Your task to perform on an android device: Open calendar and show me the fourth week of next month Image 0: 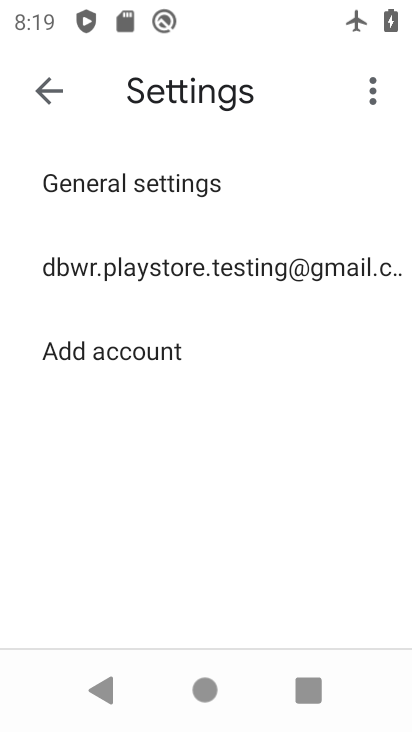
Step 0: press home button
Your task to perform on an android device: Open calendar and show me the fourth week of next month Image 1: 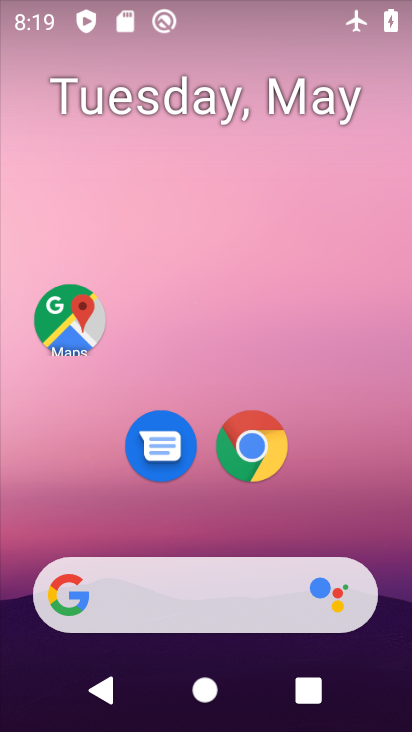
Step 1: drag from (369, 535) to (372, 210)
Your task to perform on an android device: Open calendar and show me the fourth week of next month Image 2: 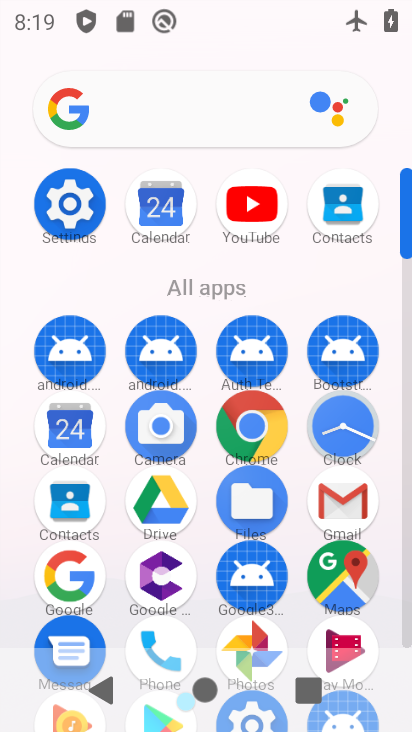
Step 2: click (85, 437)
Your task to perform on an android device: Open calendar and show me the fourth week of next month Image 3: 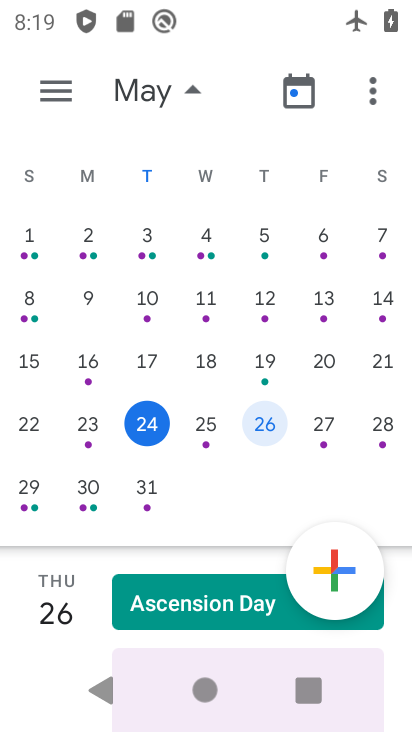
Step 3: drag from (385, 201) to (0, 207)
Your task to perform on an android device: Open calendar and show me the fourth week of next month Image 4: 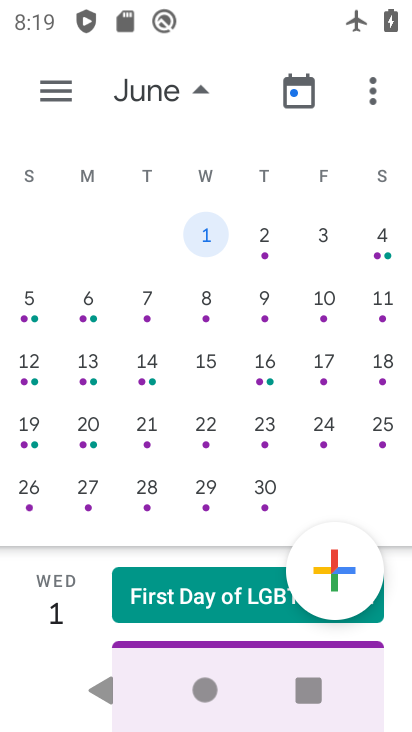
Step 4: click (79, 437)
Your task to perform on an android device: Open calendar and show me the fourth week of next month Image 5: 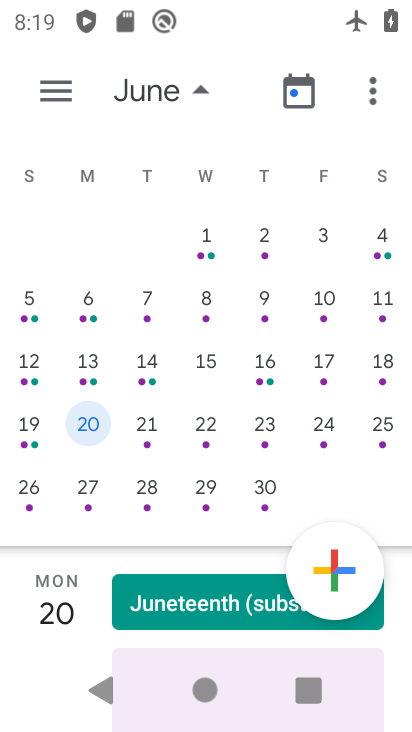
Step 5: task complete